Your task to perform on an android device: turn on priority inbox in the gmail app Image 0: 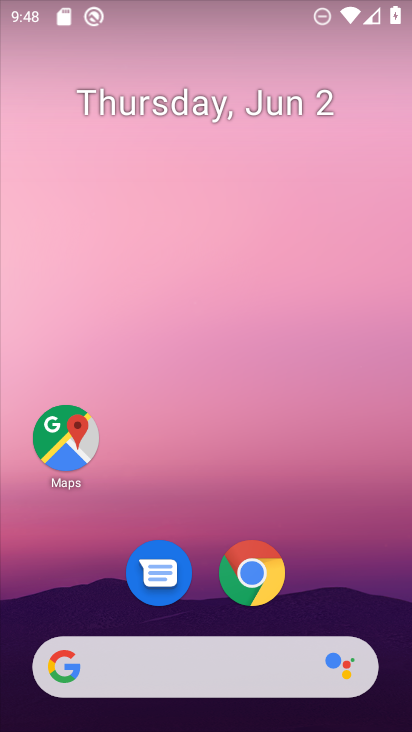
Step 0: drag from (363, 614) to (142, 139)
Your task to perform on an android device: turn on priority inbox in the gmail app Image 1: 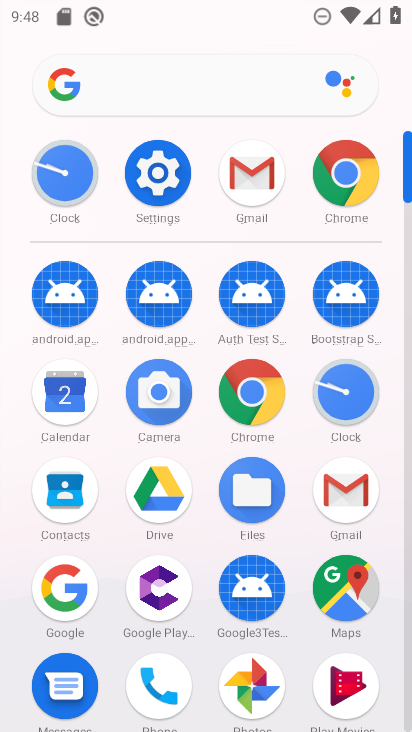
Step 1: click (255, 191)
Your task to perform on an android device: turn on priority inbox in the gmail app Image 2: 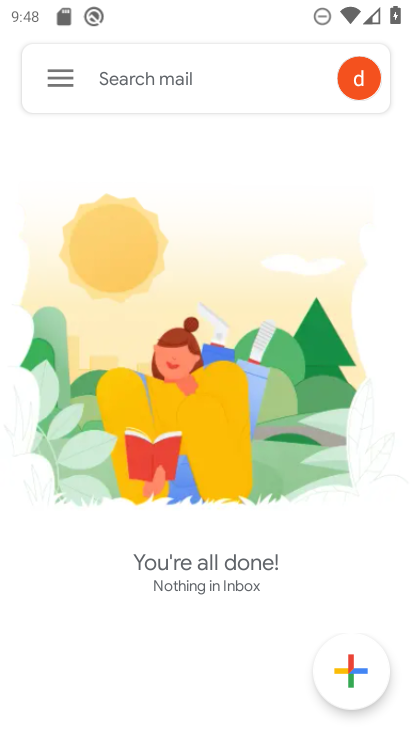
Step 2: click (56, 88)
Your task to perform on an android device: turn on priority inbox in the gmail app Image 3: 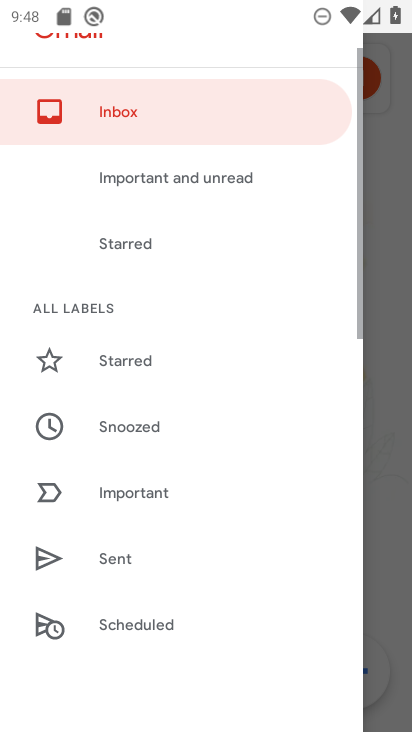
Step 3: drag from (147, 592) to (117, 120)
Your task to perform on an android device: turn on priority inbox in the gmail app Image 4: 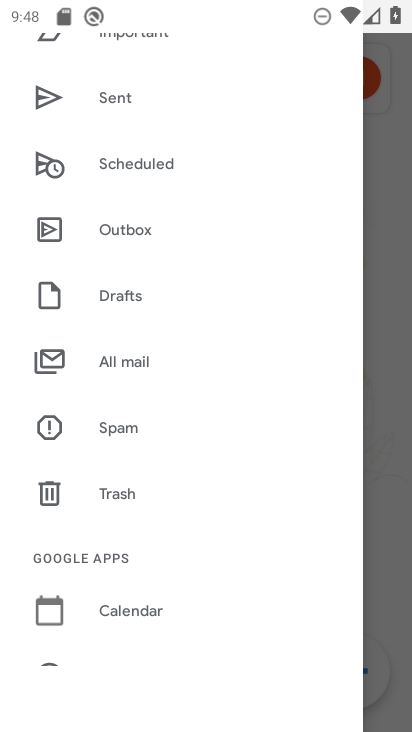
Step 4: drag from (132, 536) to (134, 157)
Your task to perform on an android device: turn on priority inbox in the gmail app Image 5: 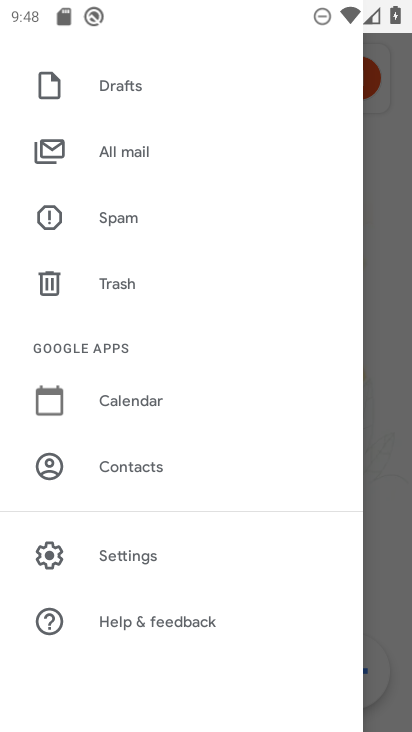
Step 5: click (136, 563)
Your task to perform on an android device: turn on priority inbox in the gmail app Image 6: 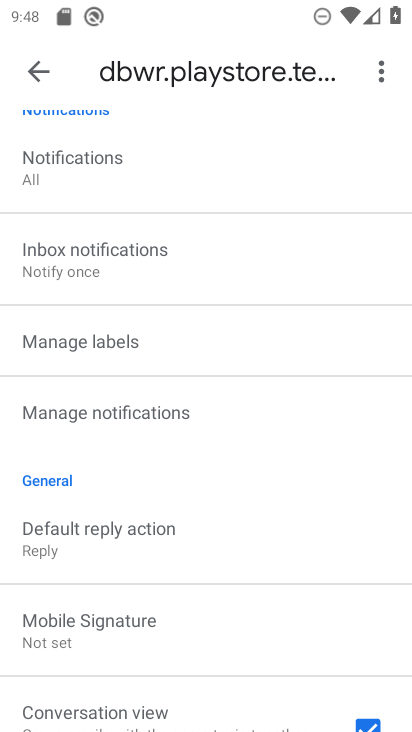
Step 6: drag from (169, 265) to (276, 731)
Your task to perform on an android device: turn on priority inbox in the gmail app Image 7: 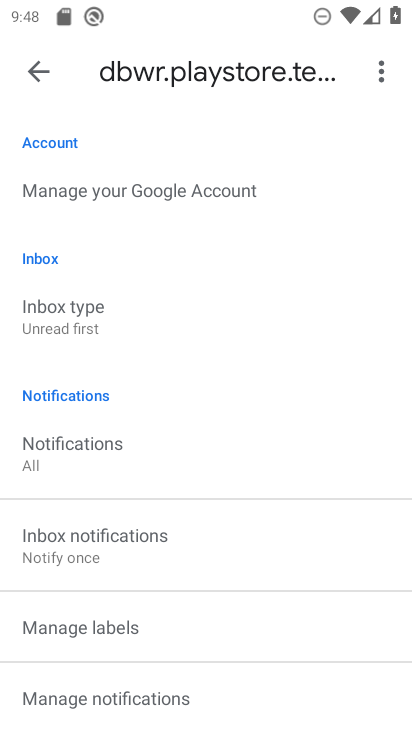
Step 7: click (77, 323)
Your task to perform on an android device: turn on priority inbox in the gmail app Image 8: 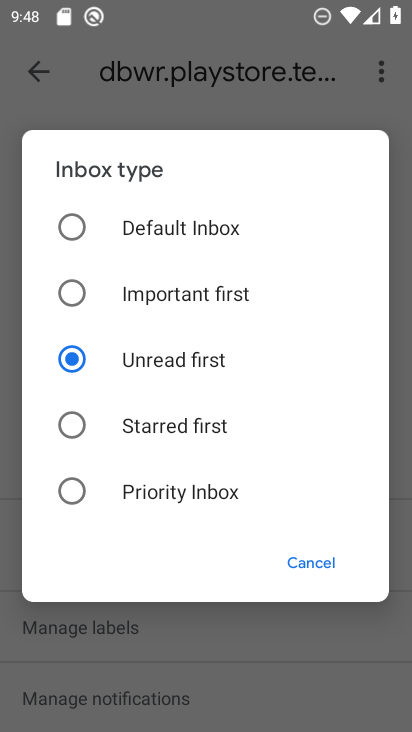
Step 8: task complete